Your task to perform on an android device: clear history in the chrome app Image 0: 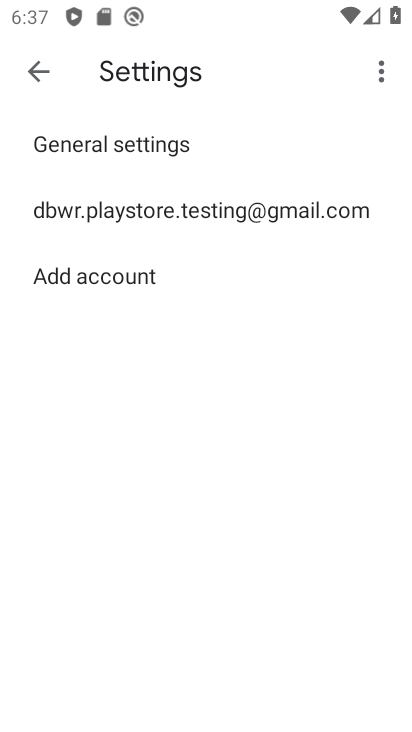
Step 0: press home button
Your task to perform on an android device: clear history in the chrome app Image 1: 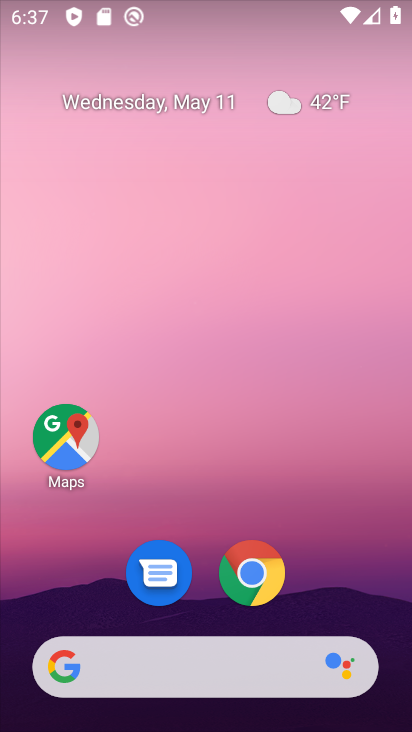
Step 1: click (266, 576)
Your task to perform on an android device: clear history in the chrome app Image 2: 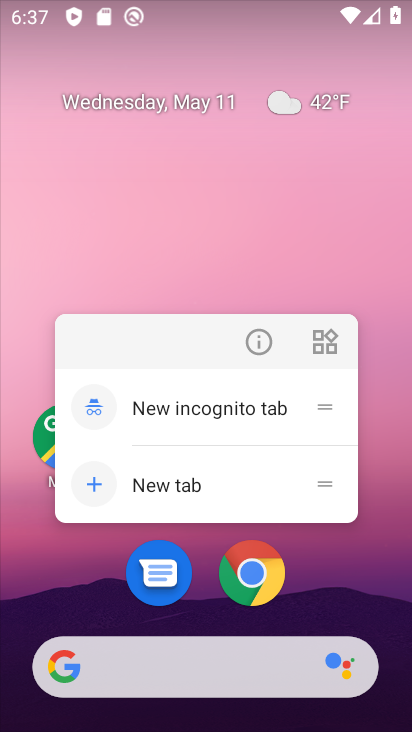
Step 2: click (248, 581)
Your task to perform on an android device: clear history in the chrome app Image 3: 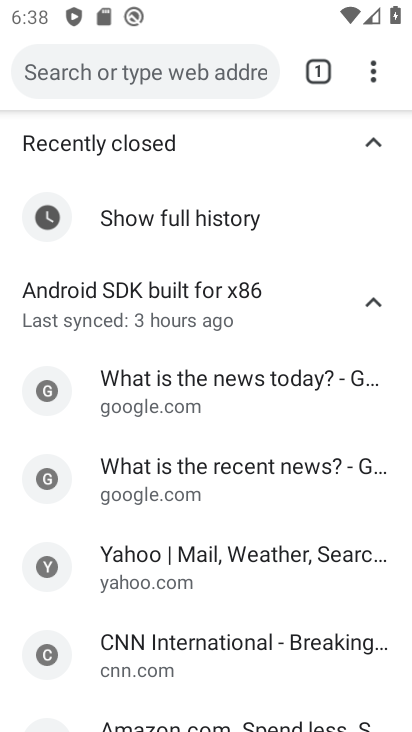
Step 3: click (374, 66)
Your task to perform on an android device: clear history in the chrome app Image 4: 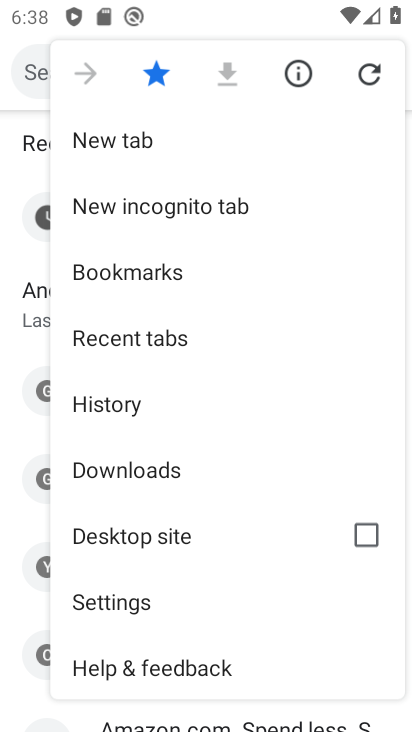
Step 4: click (110, 405)
Your task to perform on an android device: clear history in the chrome app Image 5: 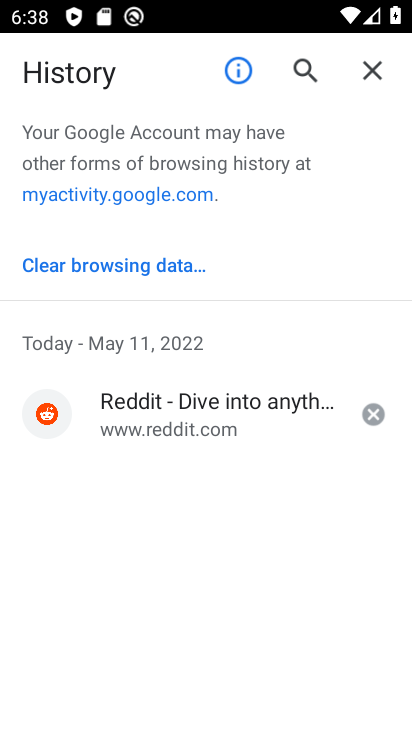
Step 5: click (131, 266)
Your task to perform on an android device: clear history in the chrome app Image 6: 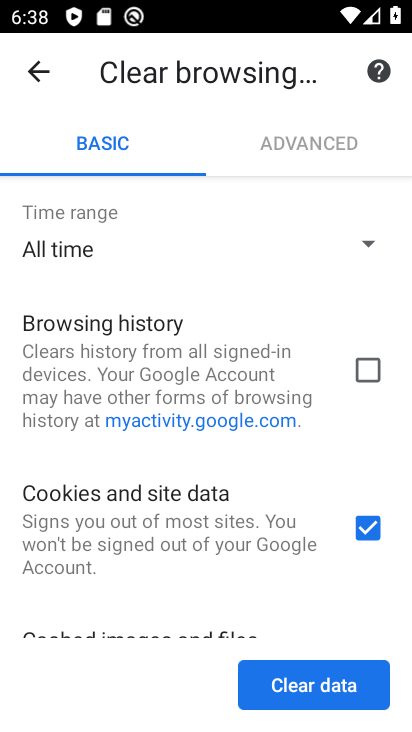
Step 6: click (384, 378)
Your task to perform on an android device: clear history in the chrome app Image 7: 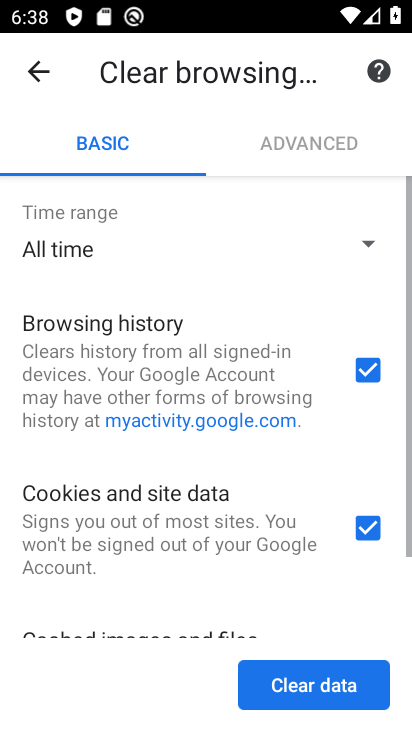
Step 7: drag from (270, 521) to (268, 284)
Your task to perform on an android device: clear history in the chrome app Image 8: 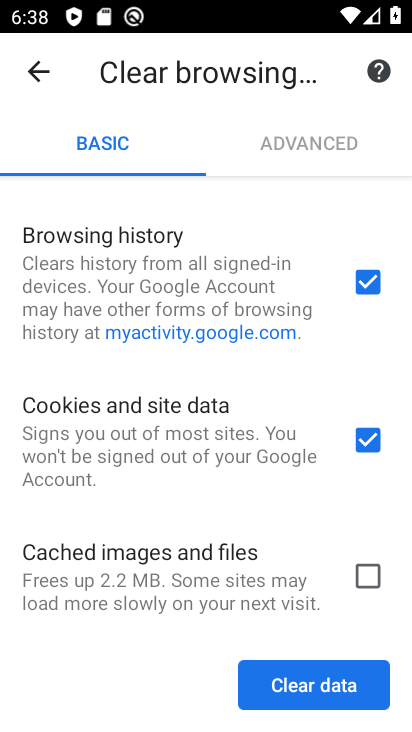
Step 8: click (368, 581)
Your task to perform on an android device: clear history in the chrome app Image 9: 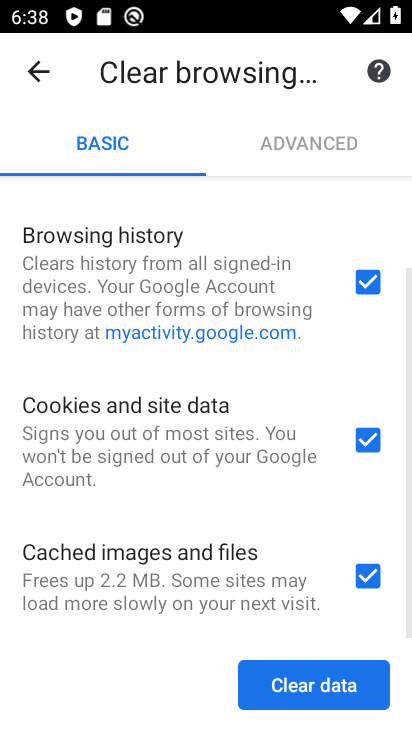
Step 9: click (309, 695)
Your task to perform on an android device: clear history in the chrome app Image 10: 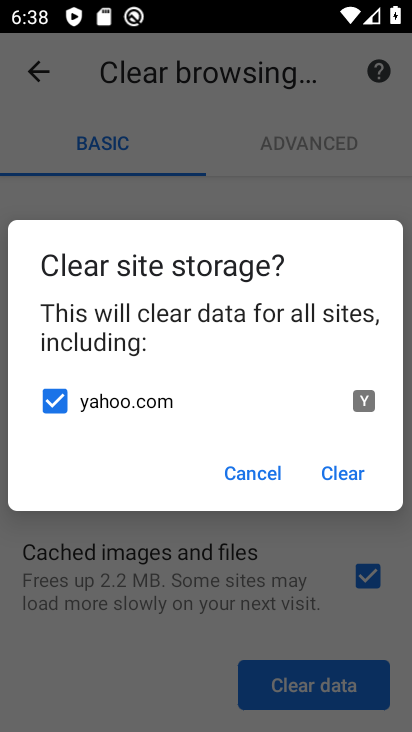
Step 10: click (355, 475)
Your task to perform on an android device: clear history in the chrome app Image 11: 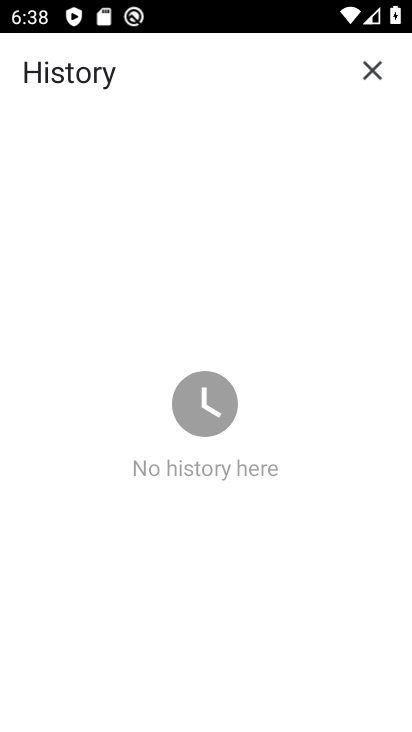
Step 11: task complete